Your task to perform on an android device: Open Chrome and go to the settings page Image 0: 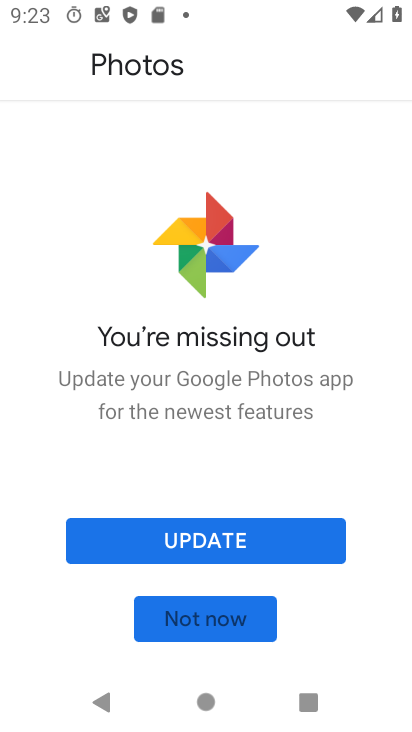
Step 0: press home button
Your task to perform on an android device: Open Chrome and go to the settings page Image 1: 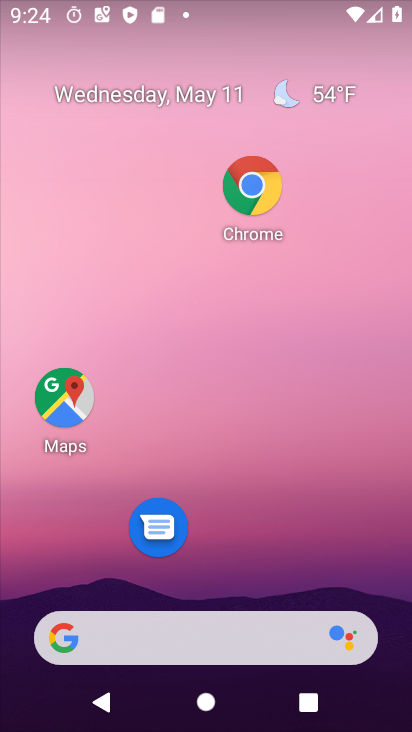
Step 1: click (251, 188)
Your task to perform on an android device: Open Chrome and go to the settings page Image 2: 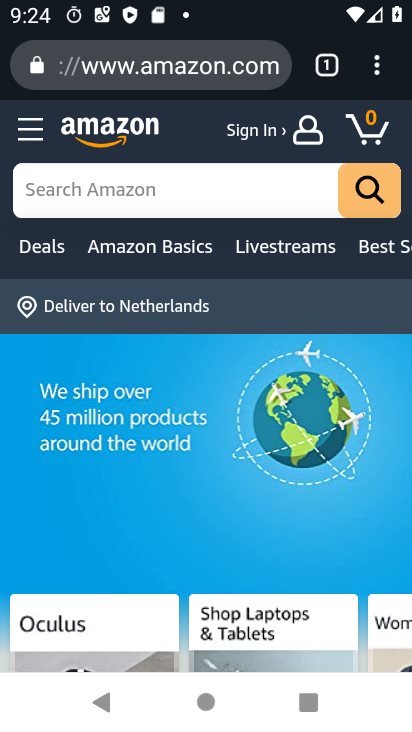
Step 2: click (366, 70)
Your task to perform on an android device: Open Chrome and go to the settings page Image 3: 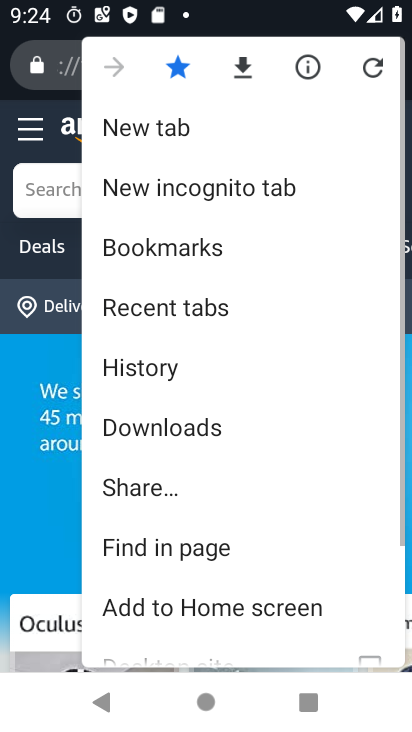
Step 3: drag from (224, 555) to (223, 135)
Your task to perform on an android device: Open Chrome and go to the settings page Image 4: 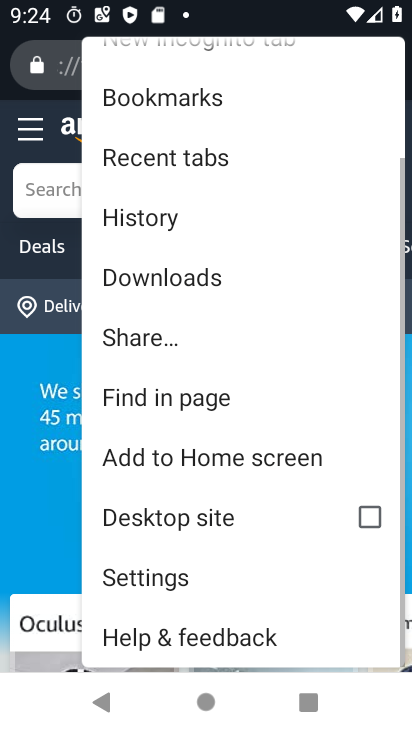
Step 4: click (182, 584)
Your task to perform on an android device: Open Chrome and go to the settings page Image 5: 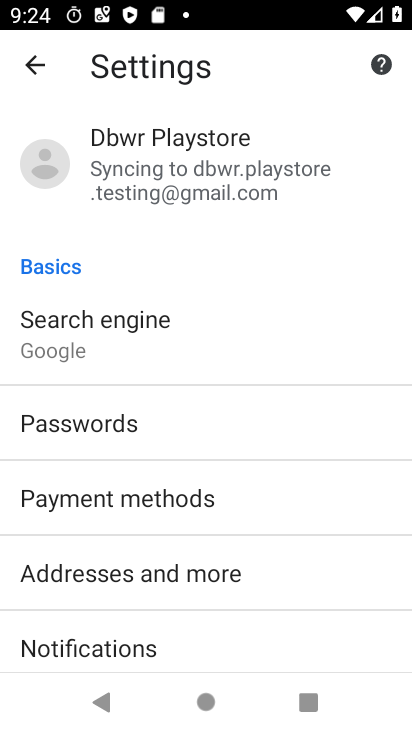
Step 5: task complete